Your task to perform on an android device: Open Yahoo.com Image 0: 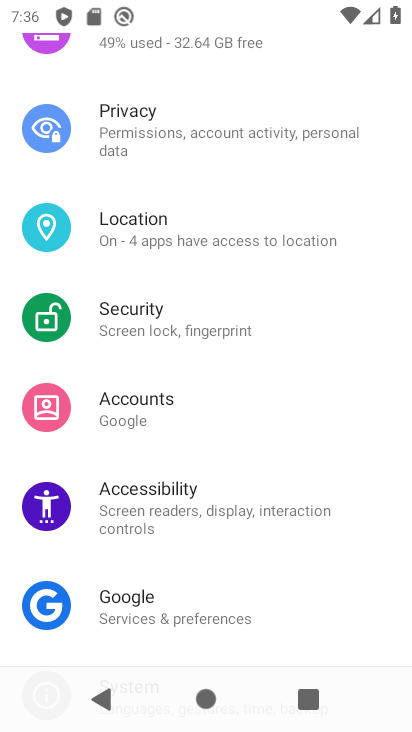
Step 0: press home button
Your task to perform on an android device: Open Yahoo.com Image 1: 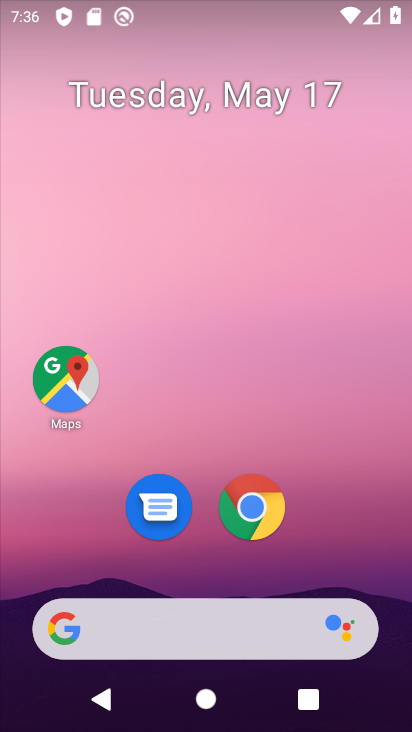
Step 1: click (255, 512)
Your task to perform on an android device: Open Yahoo.com Image 2: 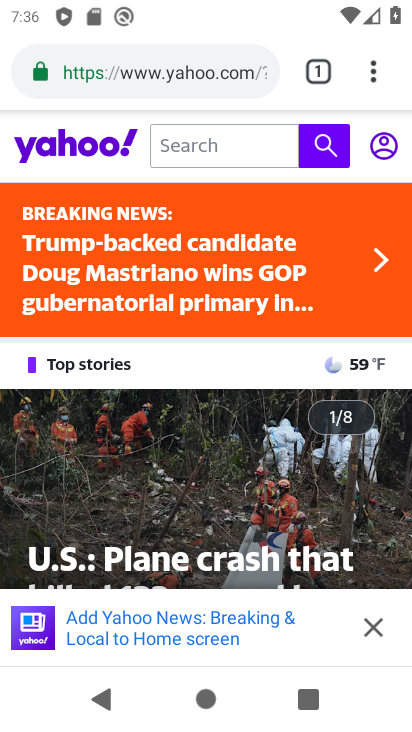
Step 2: task complete